Your task to perform on an android device: turn off airplane mode Image 0: 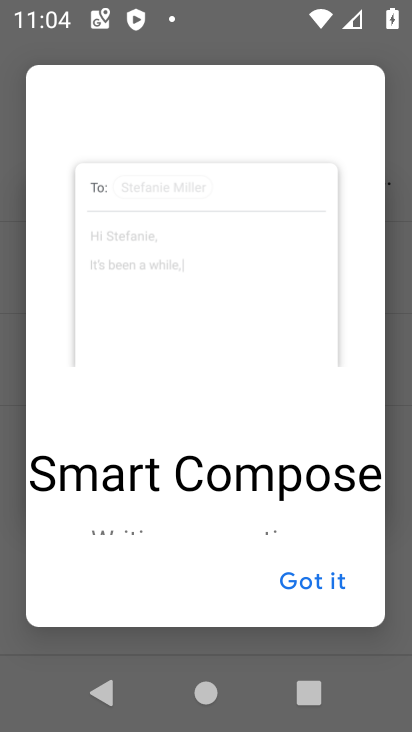
Step 0: press home button
Your task to perform on an android device: turn off airplane mode Image 1: 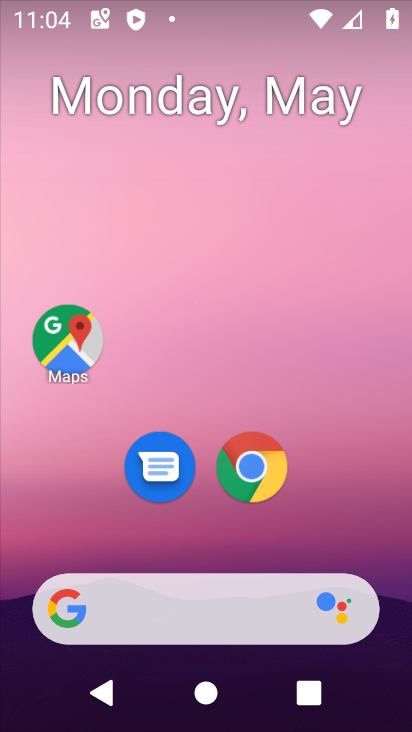
Step 1: drag from (198, 538) to (230, 65)
Your task to perform on an android device: turn off airplane mode Image 2: 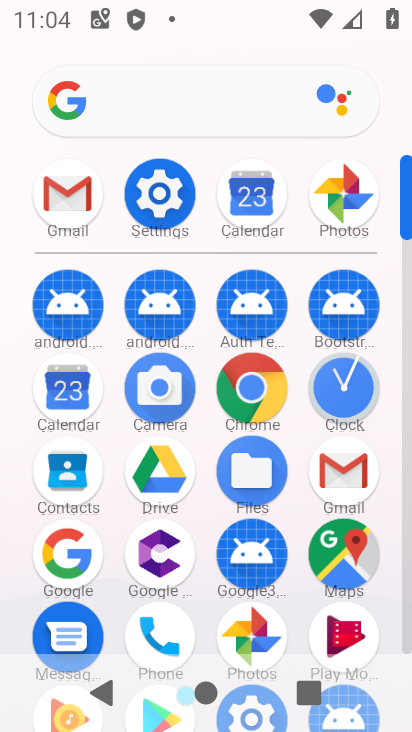
Step 2: click (162, 197)
Your task to perform on an android device: turn off airplane mode Image 3: 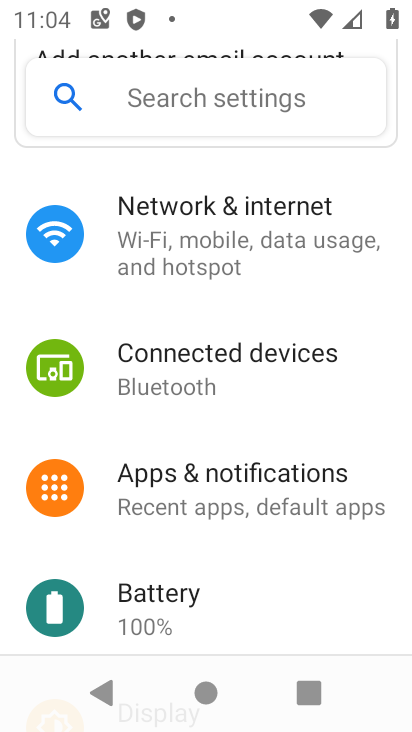
Step 3: click (160, 246)
Your task to perform on an android device: turn off airplane mode Image 4: 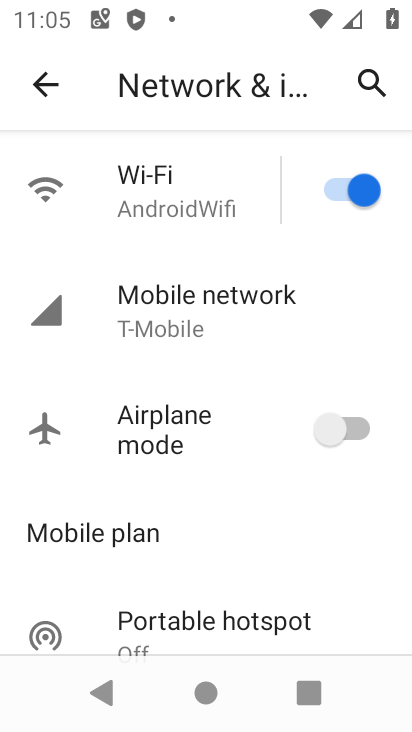
Step 4: task complete